Your task to perform on an android device: turn notification dots on Image 0: 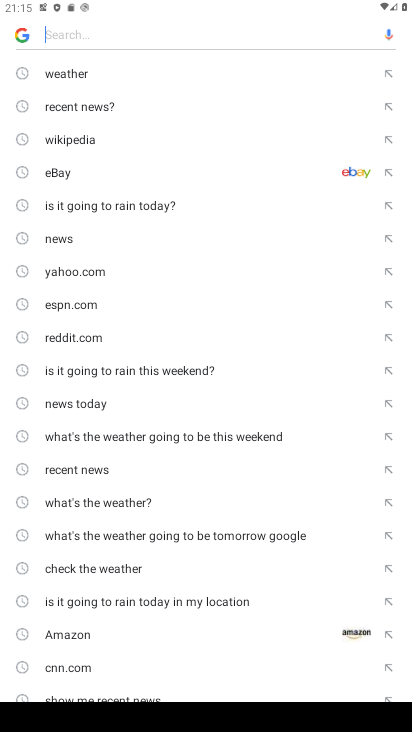
Step 0: press home button
Your task to perform on an android device: turn notification dots on Image 1: 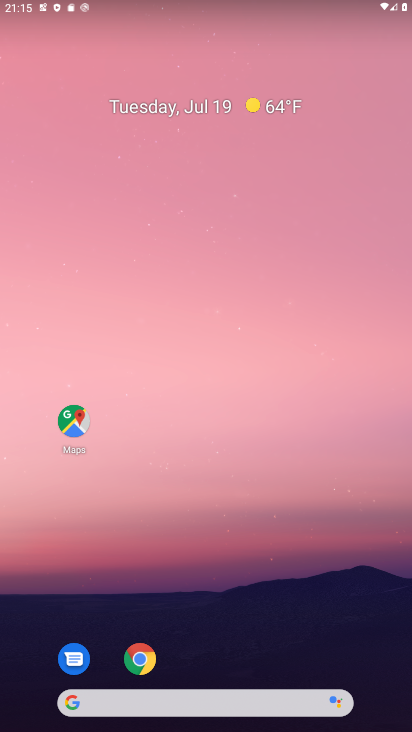
Step 1: drag from (234, 646) to (270, 187)
Your task to perform on an android device: turn notification dots on Image 2: 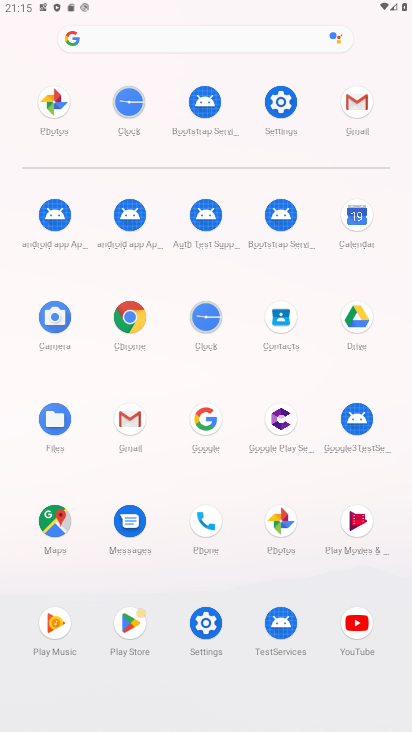
Step 2: click (283, 110)
Your task to perform on an android device: turn notification dots on Image 3: 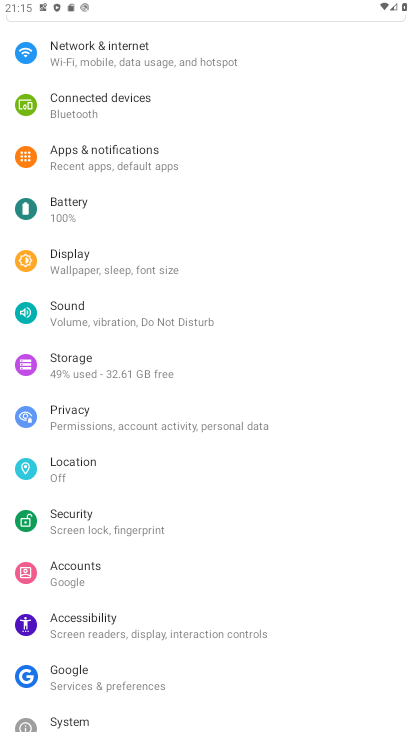
Step 3: click (112, 173)
Your task to perform on an android device: turn notification dots on Image 4: 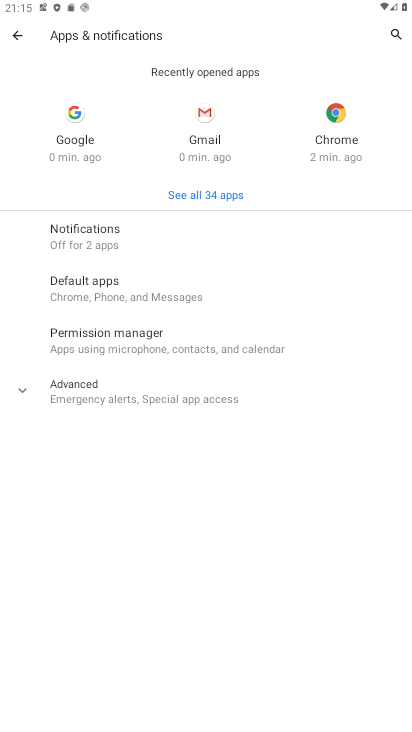
Step 4: click (126, 248)
Your task to perform on an android device: turn notification dots on Image 5: 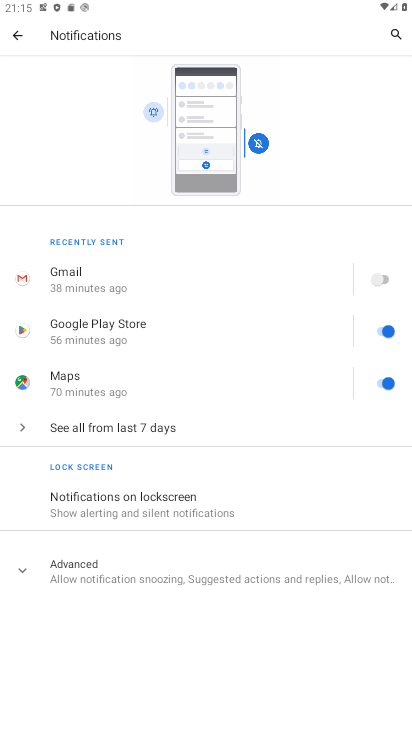
Step 5: click (165, 563)
Your task to perform on an android device: turn notification dots on Image 6: 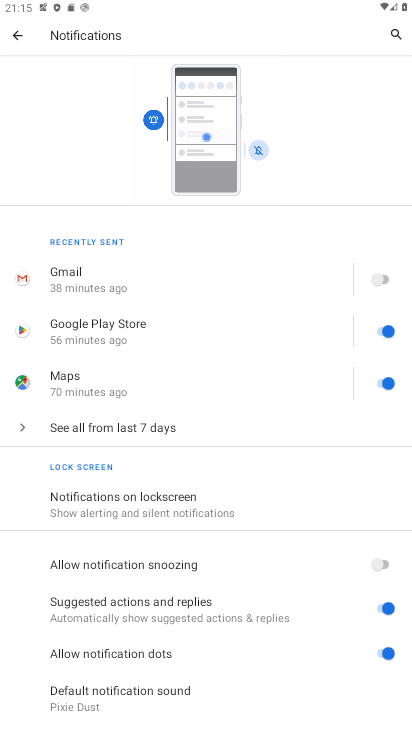
Step 6: task complete